Your task to perform on an android device: Go to notification settings Image 0: 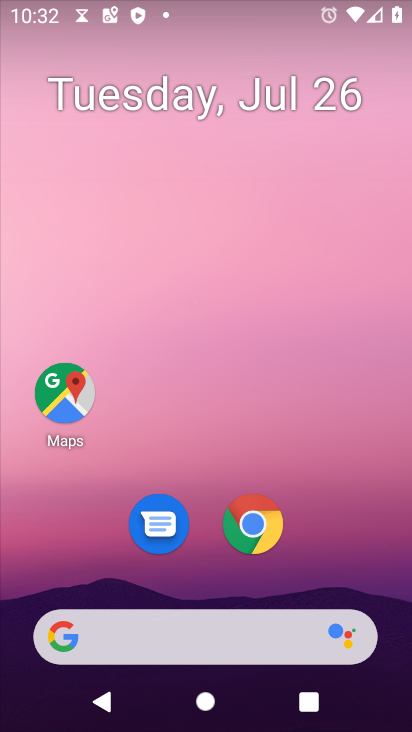
Step 0: press home button
Your task to perform on an android device: Go to notification settings Image 1: 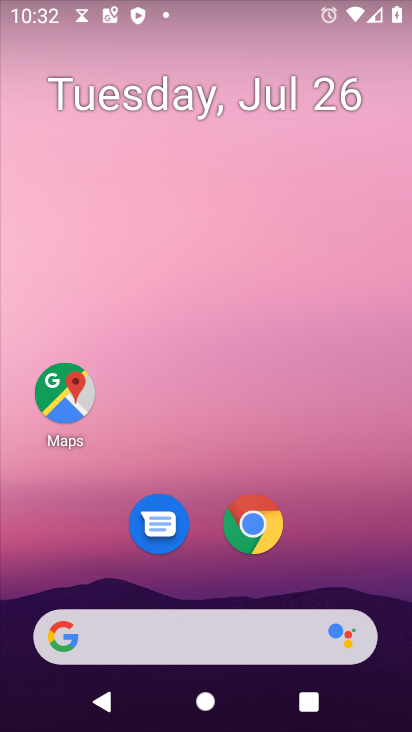
Step 1: drag from (199, 640) to (343, 156)
Your task to perform on an android device: Go to notification settings Image 2: 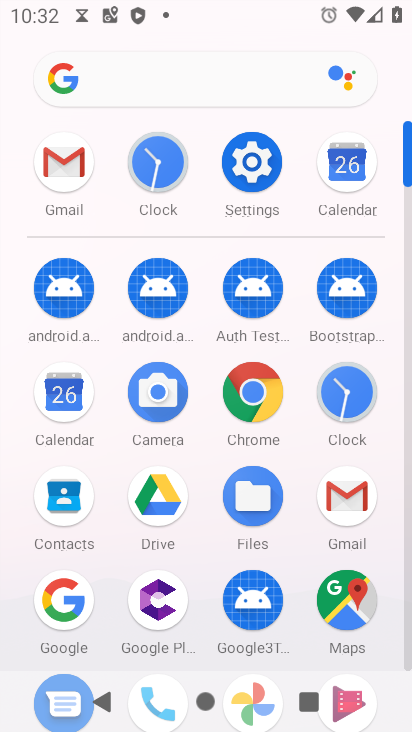
Step 2: click (240, 168)
Your task to perform on an android device: Go to notification settings Image 3: 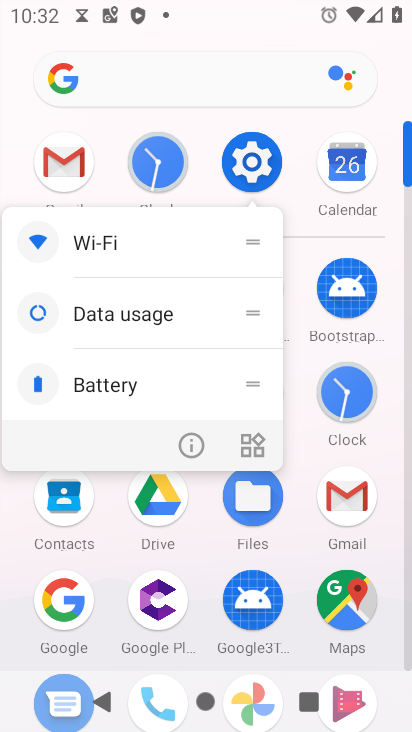
Step 3: click (249, 154)
Your task to perform on an android device: Go to notification settings Image 4: 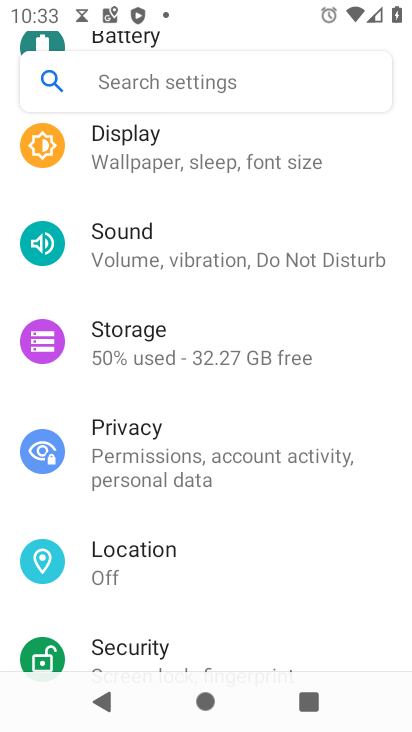
Step 4: drag from (319, 193) to (285, 635)
Your task to perform on an android device: Go to notification settings Image 5: 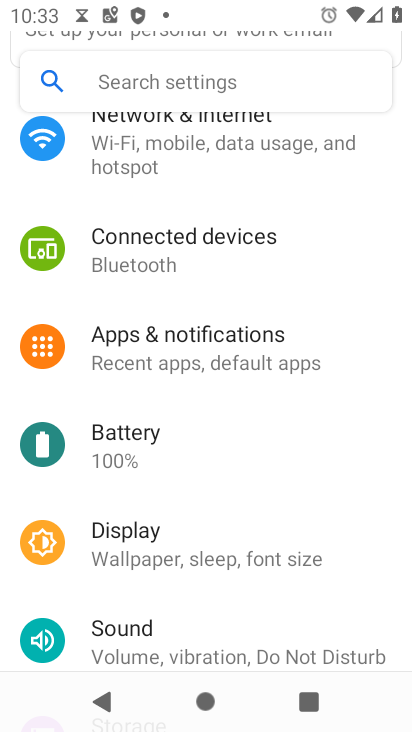
Step 5: click (212, 332)
Your task to perform on an android device: Go to notification settings Image 6: 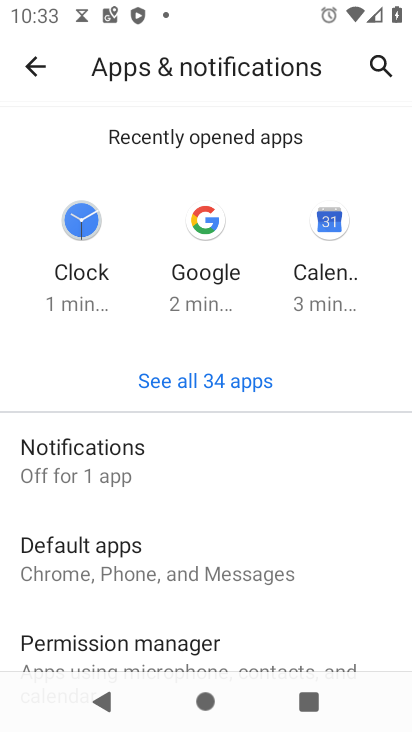
Step 6: click (125, 459)
Your task to perform on an android device: Go to notification settings Image 7: 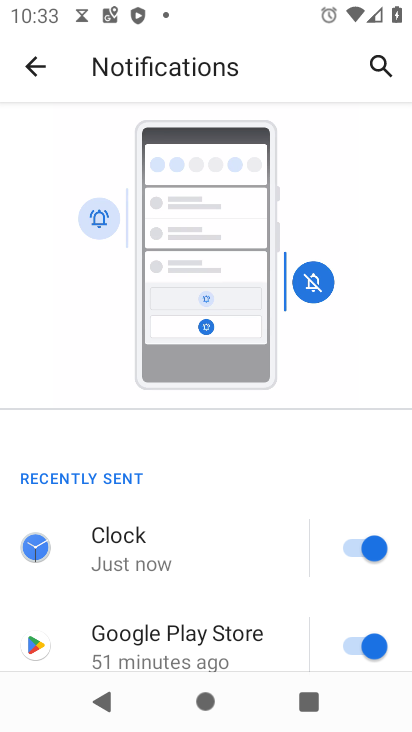
Step 7: task complete